Your task to perform on an android device: turn off translation in the chrome app Image 0: 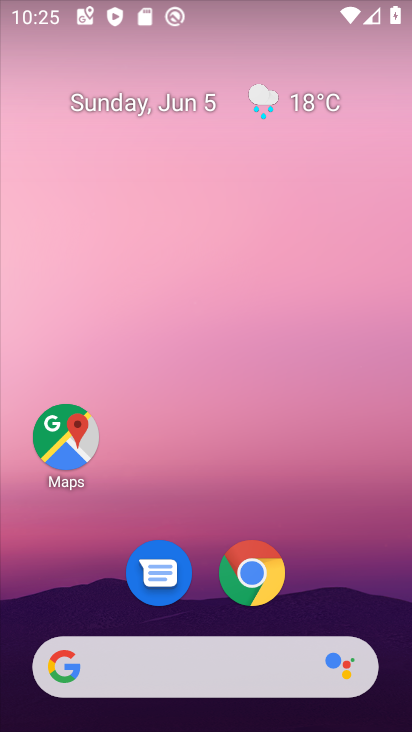
Step 0: drag from (96, 559) to (199, 150)
Your task to perform on an android device: turn off translation in the chrome app Image 1: 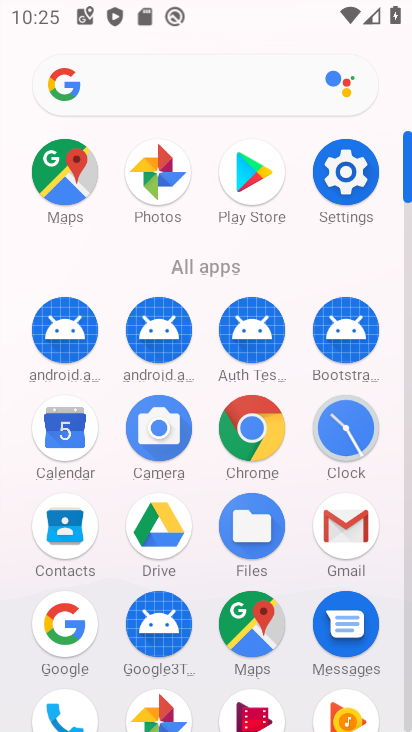
Step 1: drag from (193, 607) to (252, 333)
Your task to perform on an android device: turn off translation in the chrome app Image 2: 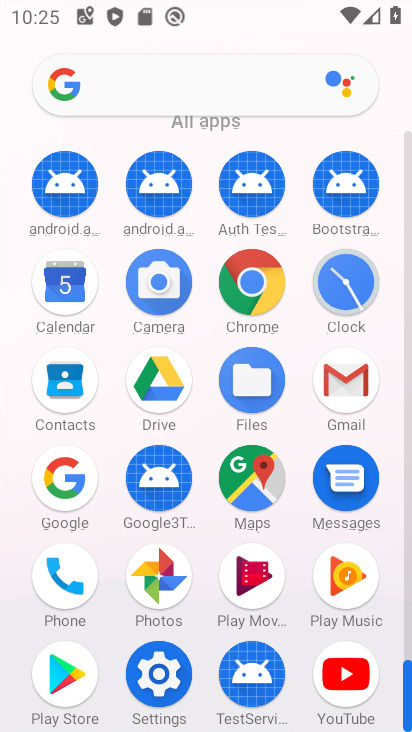
Step 2: click (265, 285)
Your task to perform on an android device: turn off translation in the chrome app Image 3: 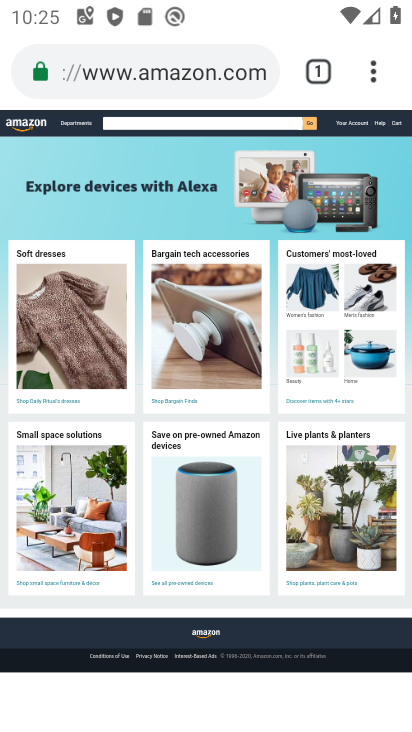
Step 3: drag from (394, 73) to (213, 580)
Your task to perform on an android device: turn off translation in the chrome app Image 4: 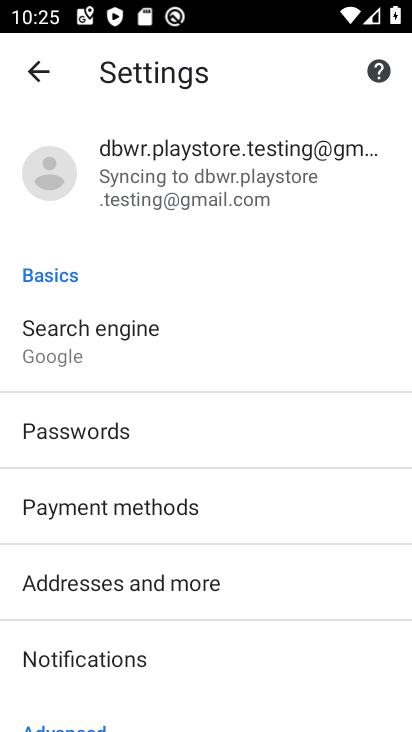
Step 4: drag from (149, 611) to (218, 278)
Your task to perform on an android device: turn off translation in the chrome app Image 5: 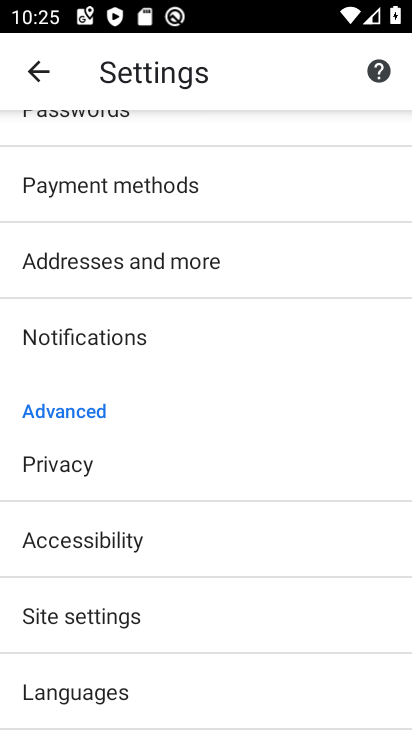
Step 5: drag from (155, 613) to (259, 292)
Your task to perform on an android device: turn off translation in the chrome app Image 6: 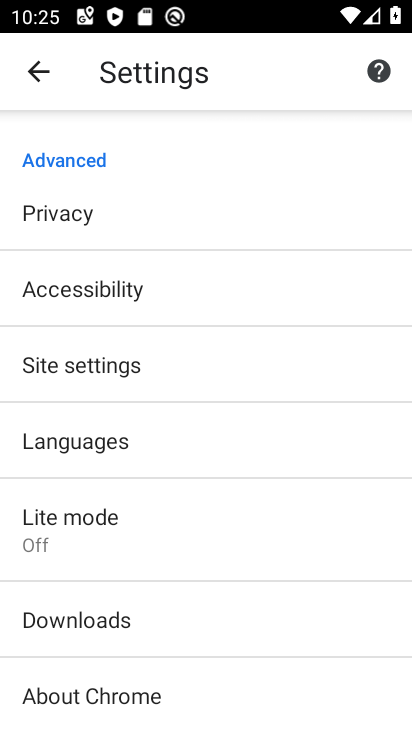
Step 6: drag from (155, 624) to (241, 326)
Your task to perform on an android device: turn off translation in the chrome app Image 7: 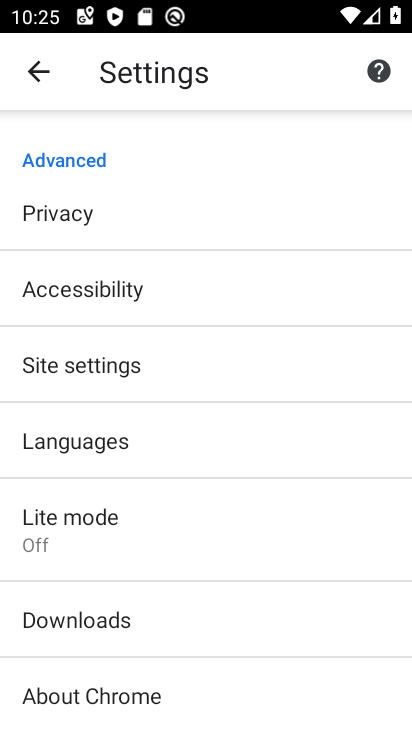
Step 7: click (138, 451)
Your task to perform on an android device: turn off translation in the chrome app Image 8: 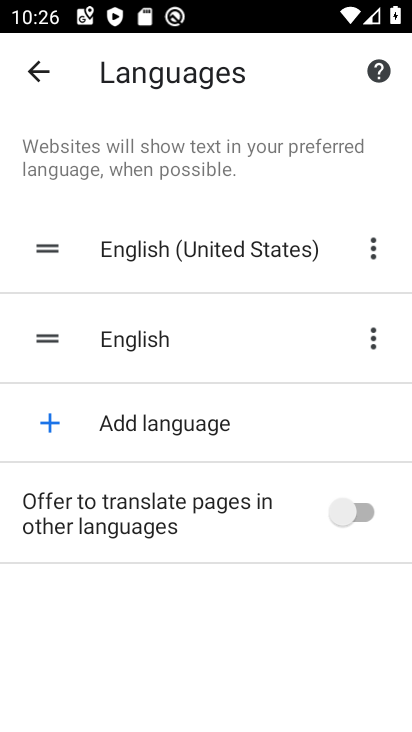
Step 8: task complete